Your task to perform on an android device: toggle wifi Image 0: 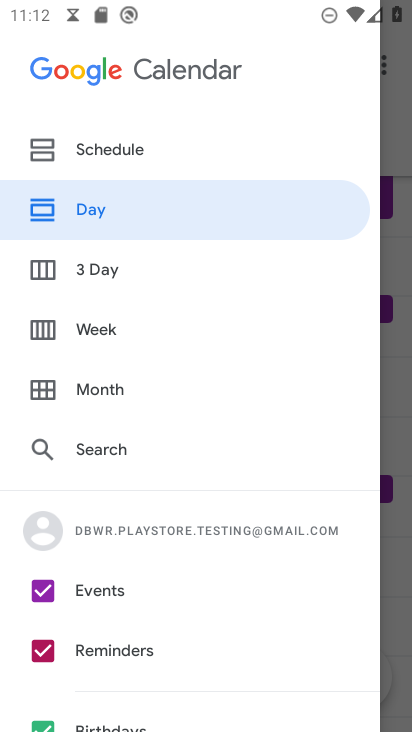
Step 0: press home button
Your task to perform on an android device: toggle wifi Image 1: 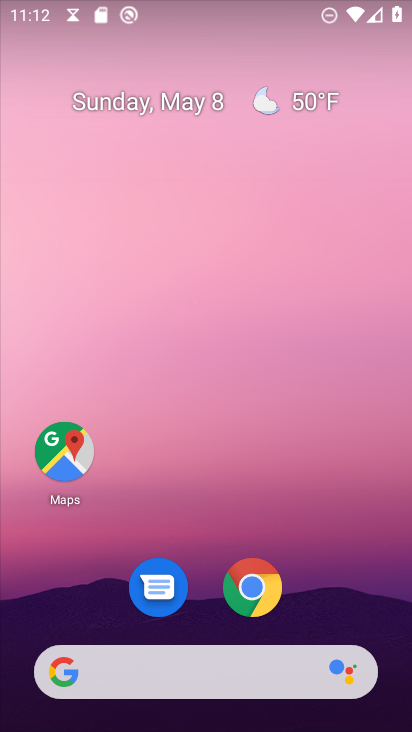
Step 1: drag from (335, 578) to (203, 152)
Your task to perform on an android device: toggle wifi Image 2: 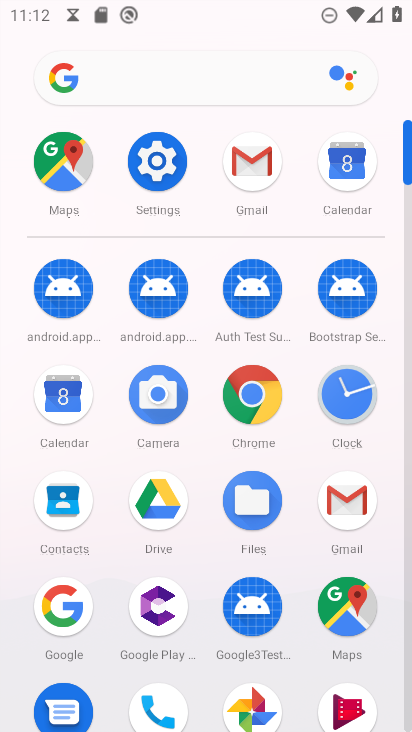
Step 2: click (164, 174)
Your task to perform on an android device: toggle wifi Image 3: 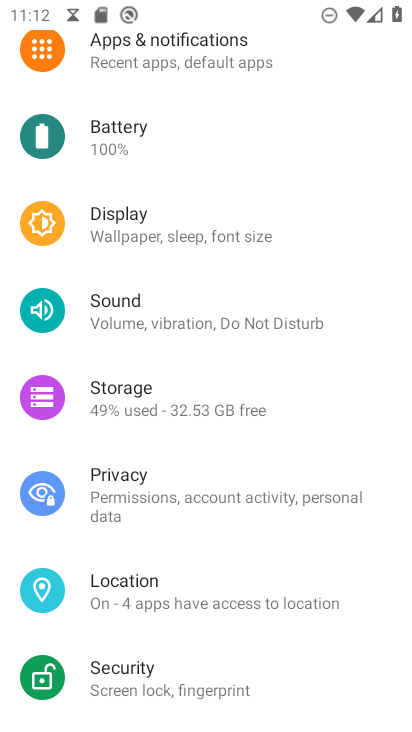
Step 3: drag from (167, 155) to (172, 383)
Your task to perform on an android device: toggle wifi Image 4: 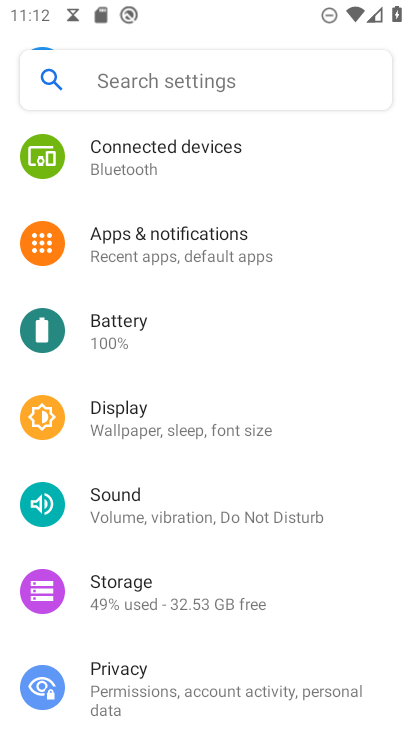
Step 4: drag from (148, 193) to (124, 353)
Your task to perform on an android device: toggle wifi Image 5: 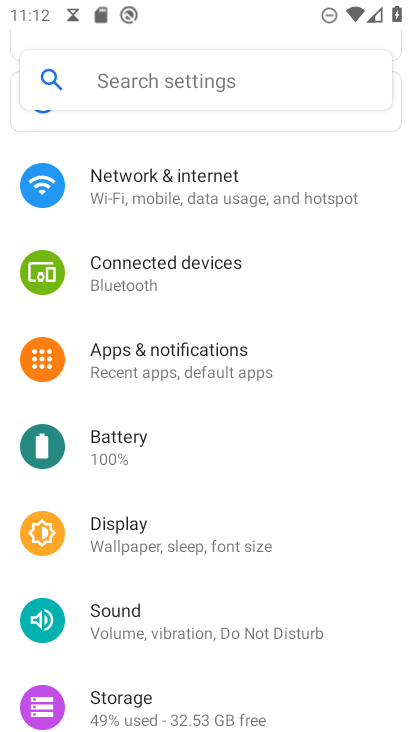
Step 5: click (153, 197)
Your task to perform on an android device: toggle wifi Image 6: 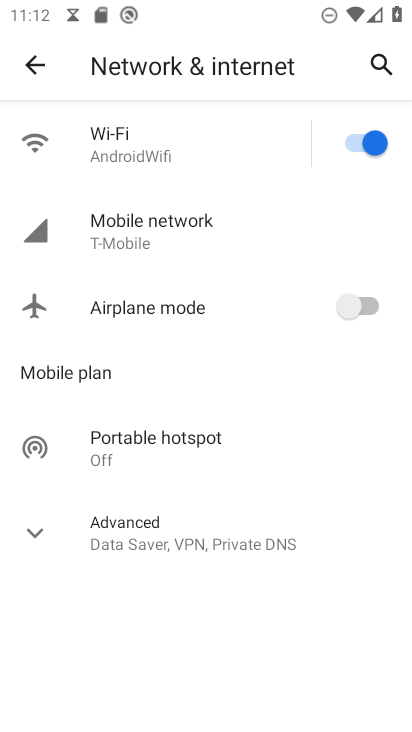
Step 6: click (371, 141)
Your task to perform on an android device: toggle wifi Image 7: 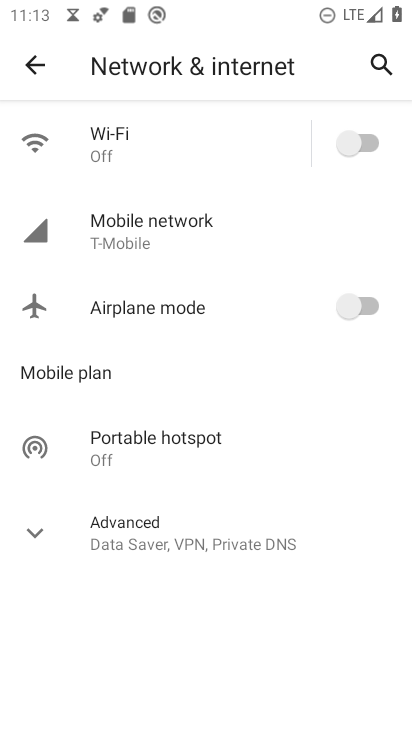
Step 7: task complete